Your task to perform on an android device: Search for pizza restaurants on Maps Image 0: 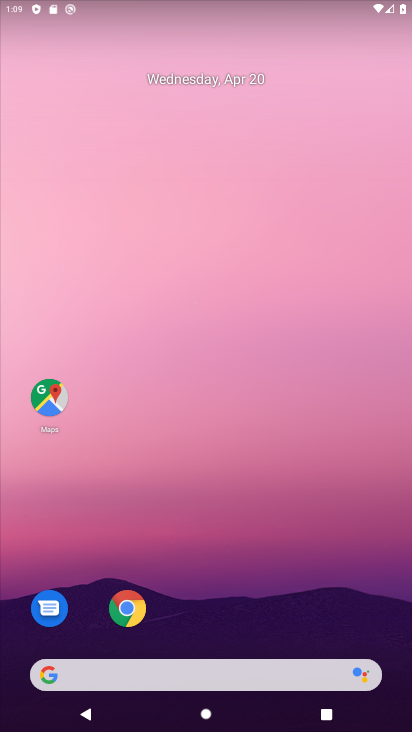
Step 0: drag from (207, 529) to (208, 123)
Your task to perform on an android device: Search for pizza restaurants on Maps Image 1: 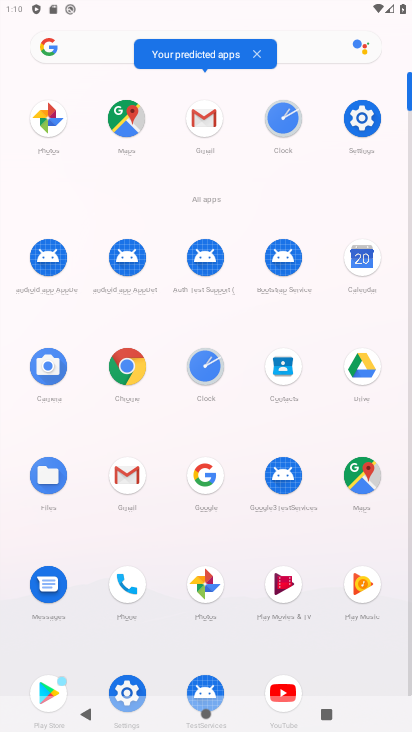
Step 1: click (363, 473)
Your task to perform on an android device: Search for pizza restaurants on Maps Image 2: 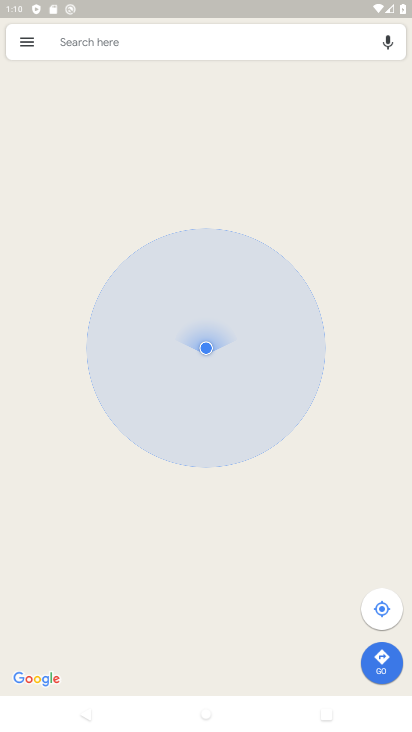
Step 2: click (184, 38)
Your task to perform on an android device: Search for pizza restaurants on Maps Image 3: 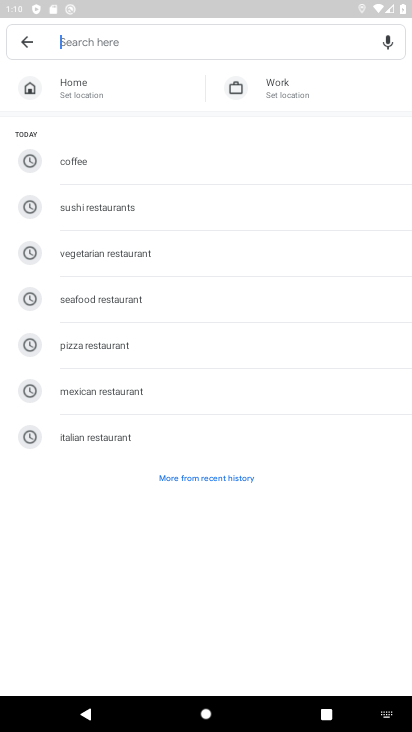
Step 3: type "pizza restaurants"
Your task to perform on an android device: Search for pizza restaurants on Maps Image 4: 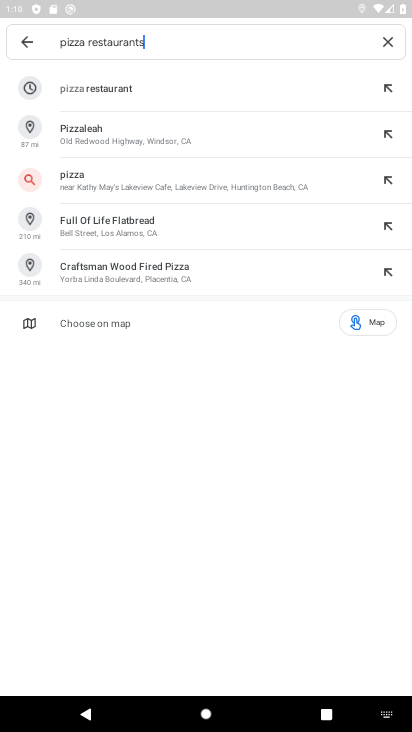
Step 4: click (91, 89)
Your task to perform on an android device: Search for pizza restaurants on Maps Image 5: 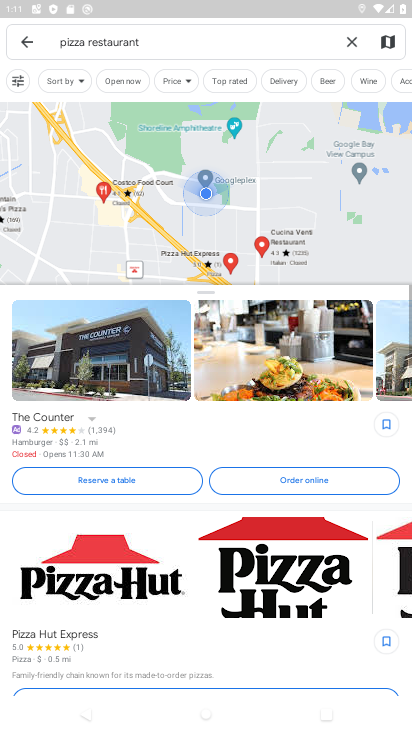
Step 5: task complete